Your task to perform on an android device: Open network settings Image 0: 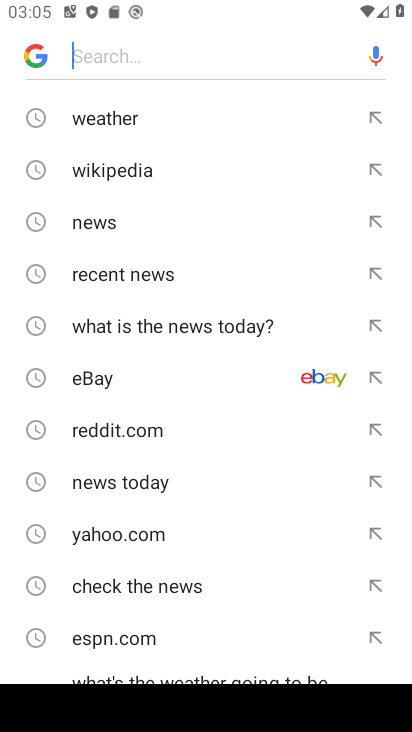
Step 0: press home button
Your task to perform on an android device: Open network settings Image 1: 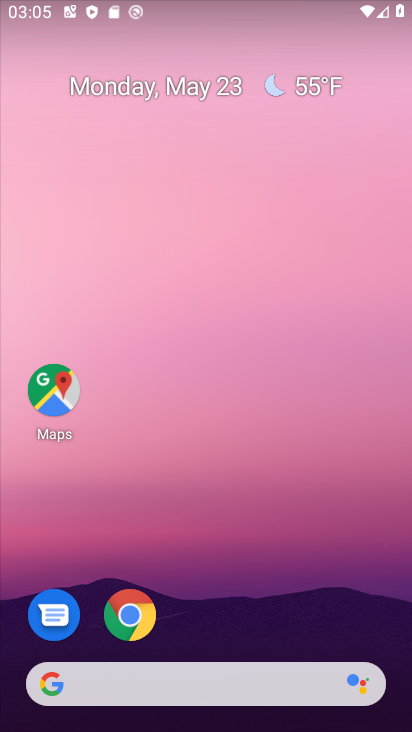
Step 1: drag from (345, 599) to (344, 310)
Your task to perform on an android device: Open network settings Image 2: 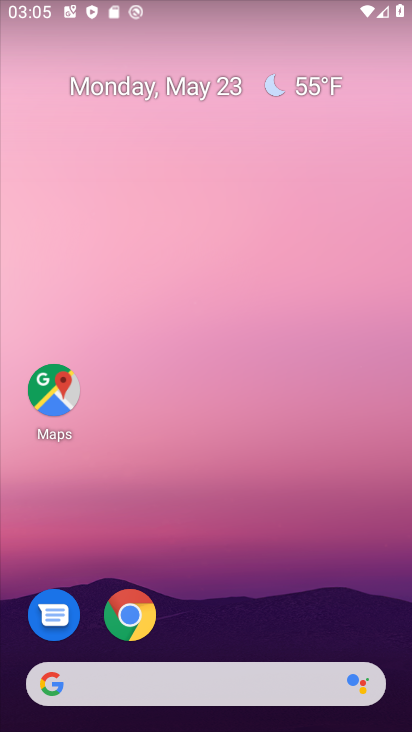
Step 2: drag from (386, 598) to (383, 271)
Your task to perform on an android device: Open network settings Image 3: 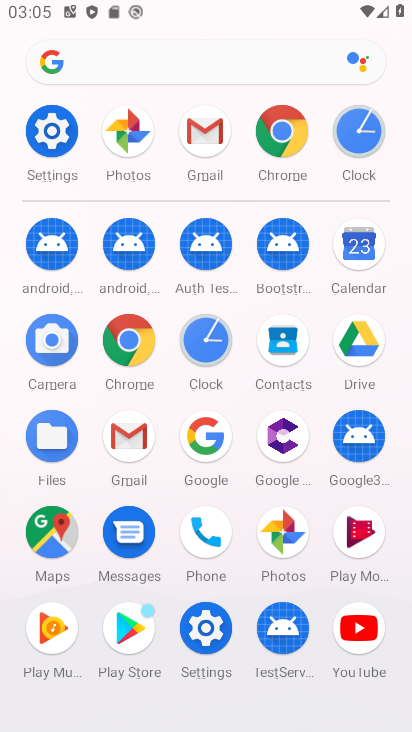
Step 3: click (216, 631)
Your task to perform on an android device: Open network settings Image 4: 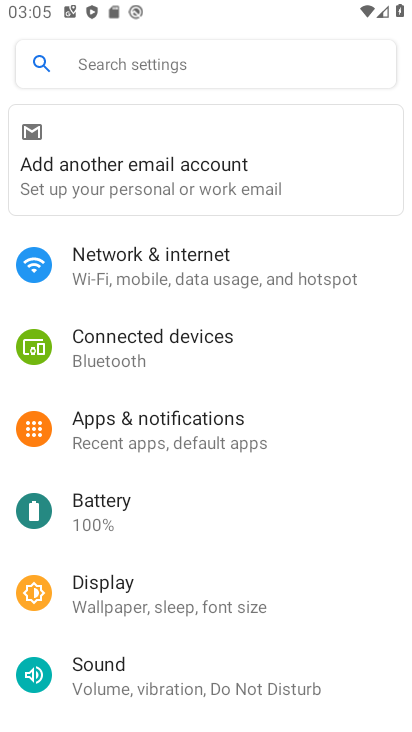
Step 4: drag from (341, 586) to (343, 462)
Your task to perform on an android device: Open network settings Image 5: 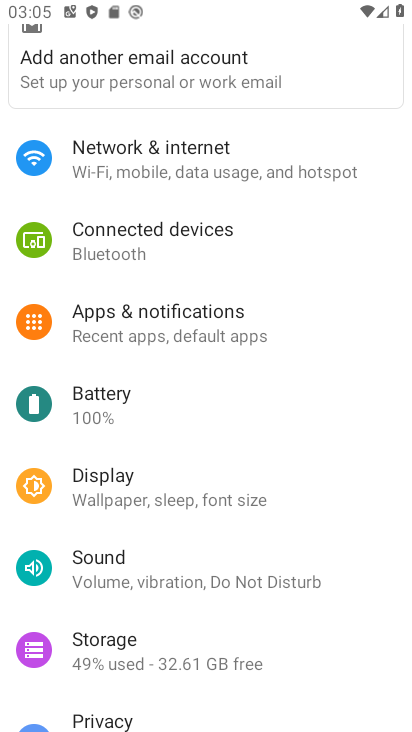
Step 5: drag from (357, 672) to (364, 518)
Your task to perform on an android device: Open network settings Image 6: 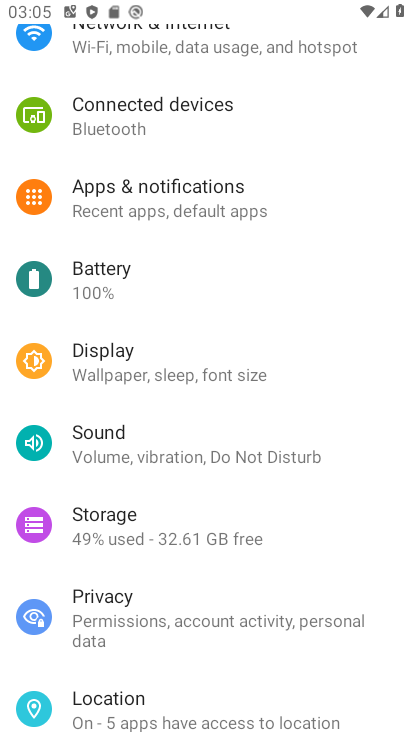
Step 6: drag from (367, 656) to (364, 567)
Your task to perform on an android device: Open network settings Image 7: 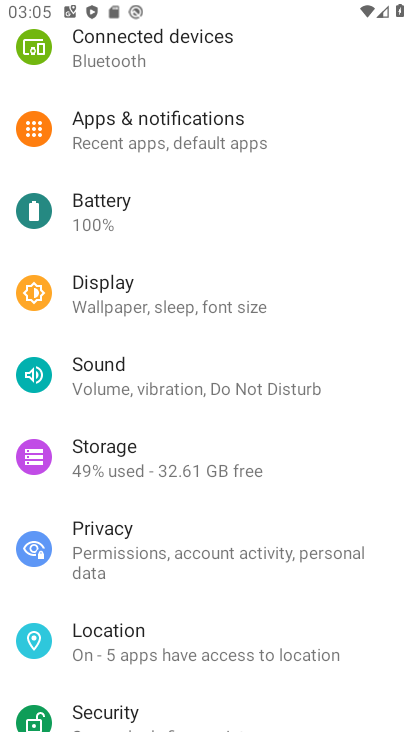
Step 7: drag from (359, 674) to (361, 558)
Your task to perform on an android device: Open network settings Image 8: 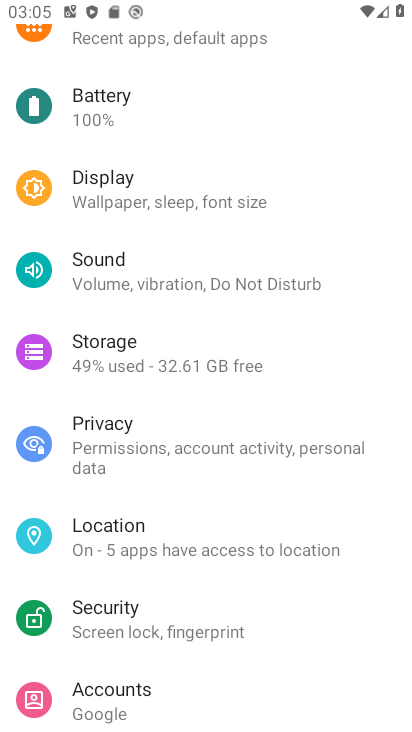
Step 8: drag from (344, 678) to (358, 566)
Your task to perform on an android device: Open network settings Image 9: 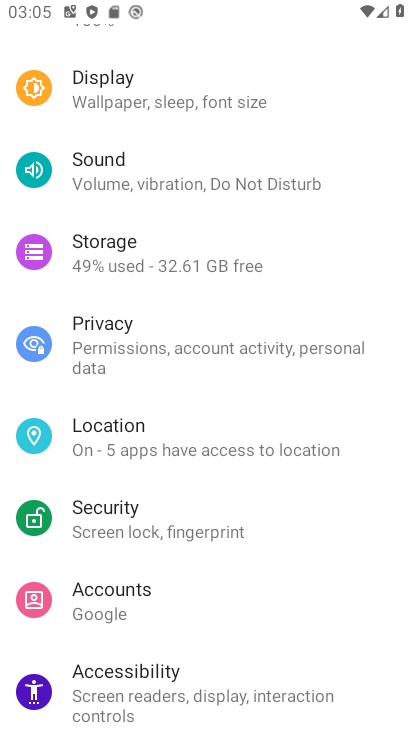
Step 9: drag from (372, 692) to (375, 524)
Your task to perform on an android device: Open network settings Image 10: 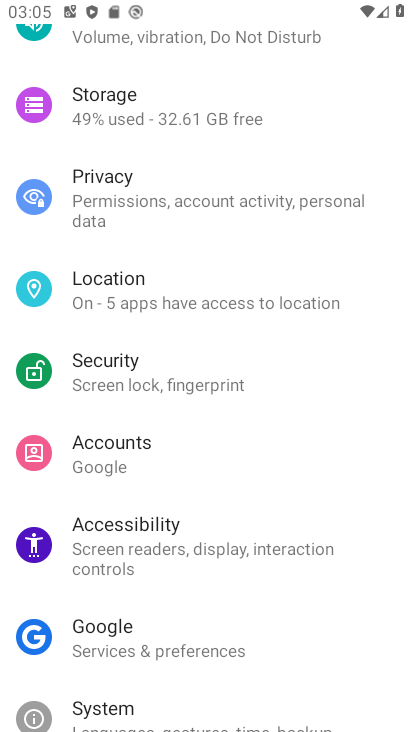
Step 10: drag from (362, 677) to (369, 485)
Your task to perform on an android device: Open network settings Image 11: 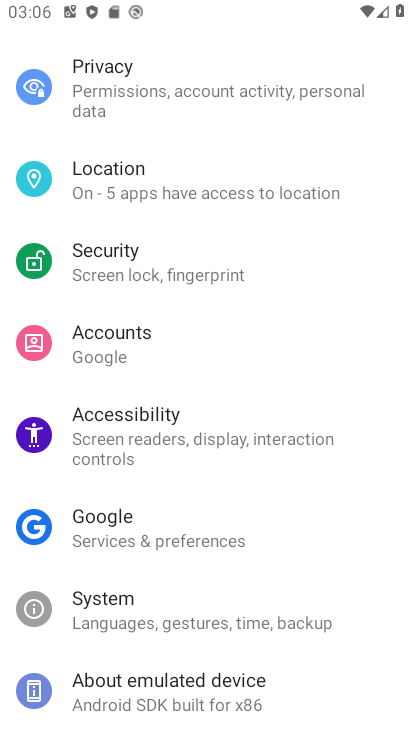
Step 11: drag from (366, 437) to (367, 535)
Your task to perform on an android device: Open network settings Image 12: 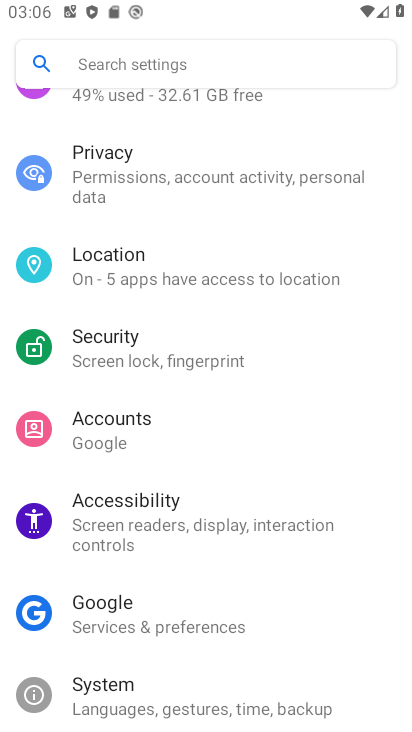
Step 12: drag from (367, 427) to (357, 535)
Your task to perform on an android device: Open network settings Image 13: 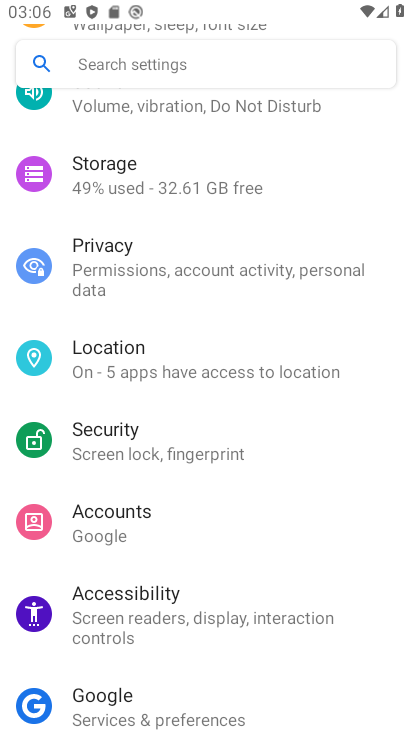
Step 13: drag from (346, 447) to (347, 565)
Your task to perform on an android device: Open network settings Image 14: 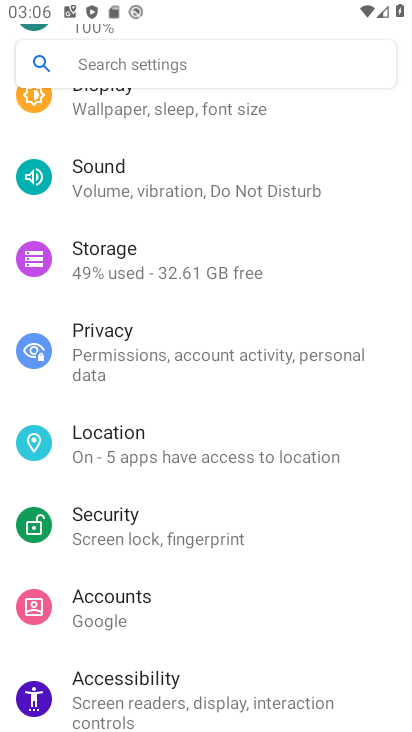
Step 14: drag from (337, 419) to (343, 525)
Your task to perform on an android device: Open network settings Image 15: 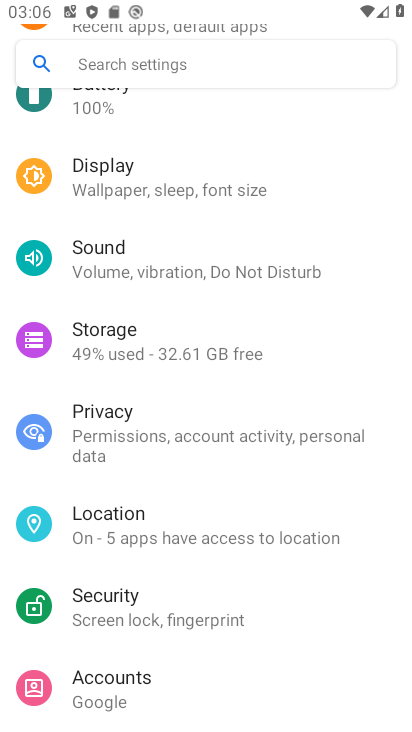
Step 15: drag from (357, 395) to (360, 487)
Your task to perform on an android device: Open network settings Image 16: 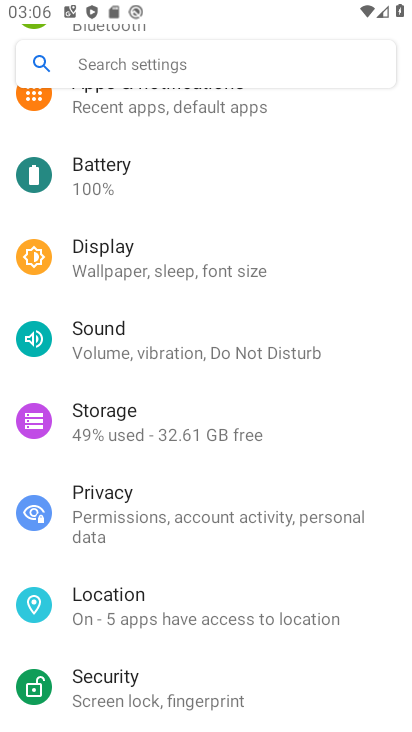
Step 16: drag from (353, 379) to (336, 489)
Your task to perform on an android device: Open network settings Image 17: 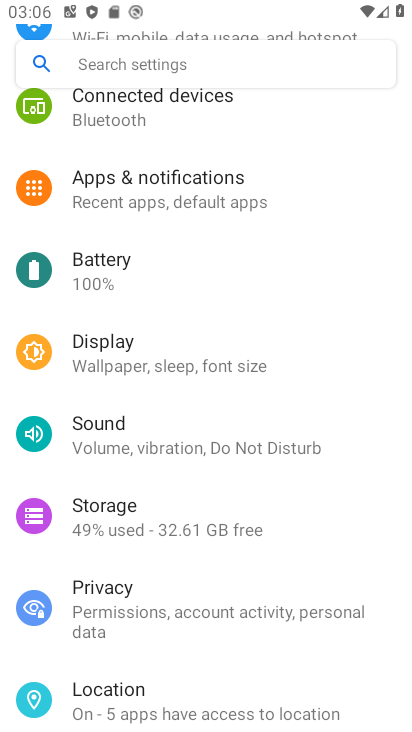
Step 17: drag from (339, 395) to (337, 494)
Your task to perform on an android device: Open network settings Image 18: 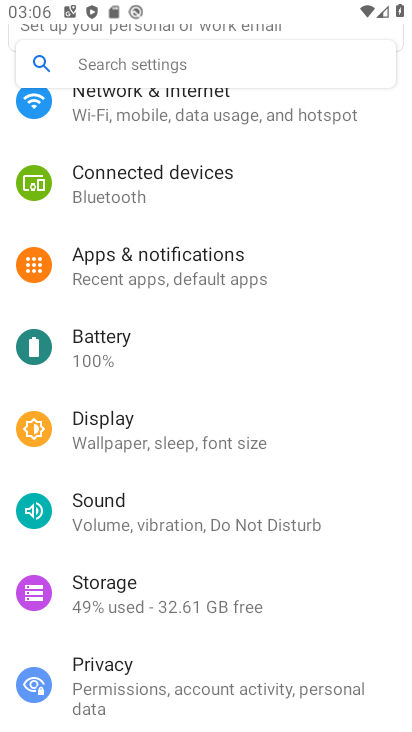
Step 18: drag from (338, 396) to (334, 514)
Your task to perform on an android device: Open network settings Image 19: 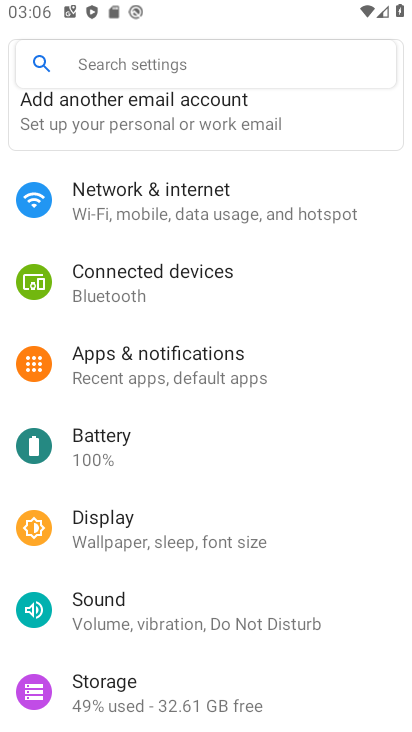
Step 19: drag from (329, 374) to (327, 491)
Your task to perform on an android device: Open network settings Image 20: 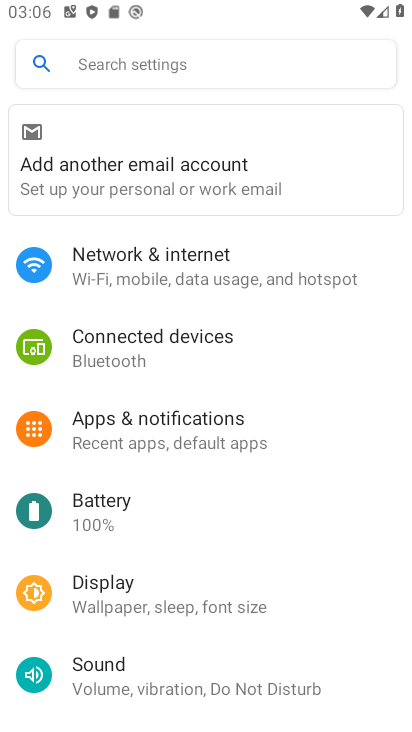
Step 20: click (291, 275)
Your task to perform on an android device: Open network settings Image 21: 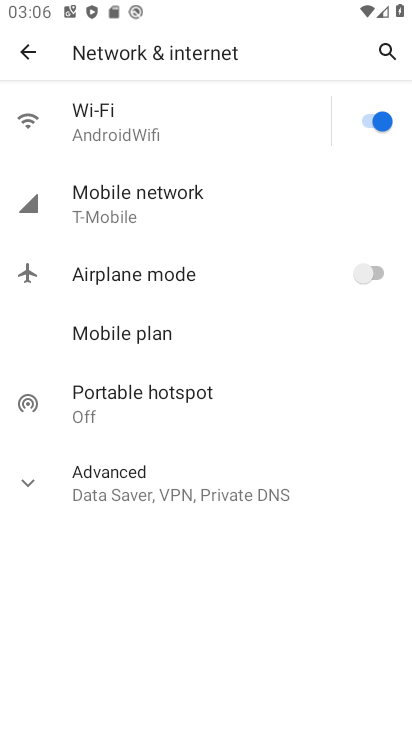
Step 21: task complete